Your task to perform on an android device: toggle data saver in the chrome app Image 0: 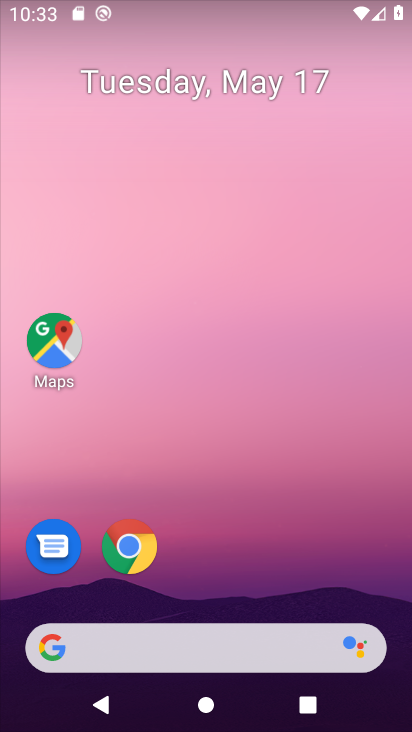
Step 0: drag from (251, 592) to (222, 146)
Your task to perform on an android device: toggle data saver in the chrome app Image 1: 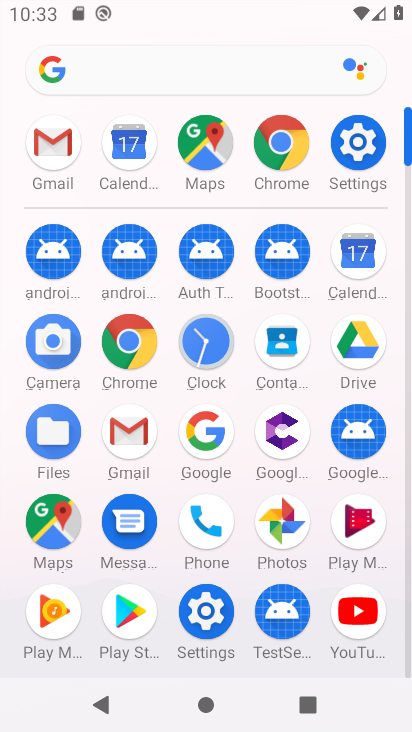
Step 1: click (280, 144)
Your task to perform on an android device: toggle data saver in the chrome app Image 2: 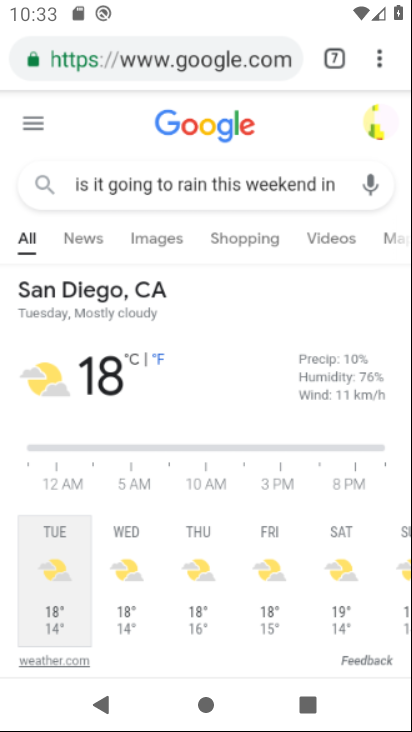
Step 2: click (387, 58)
Your task to perform on an android device: toggle data saver in the chrome app Image 3: 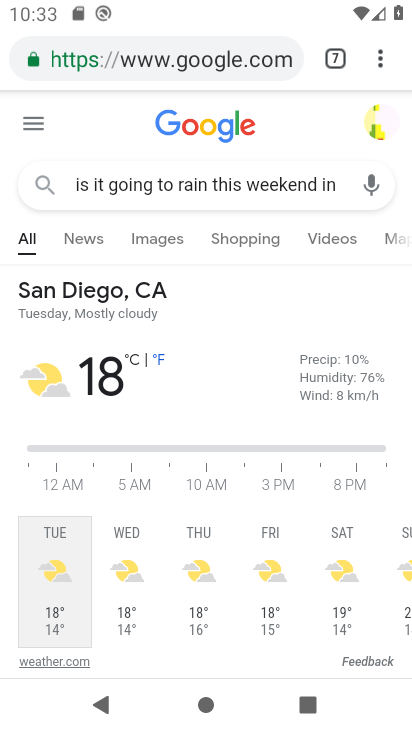
Step 3: click (382, 65)
Your task to perform on an android device: toggle data saver in the chrome app Image 4: 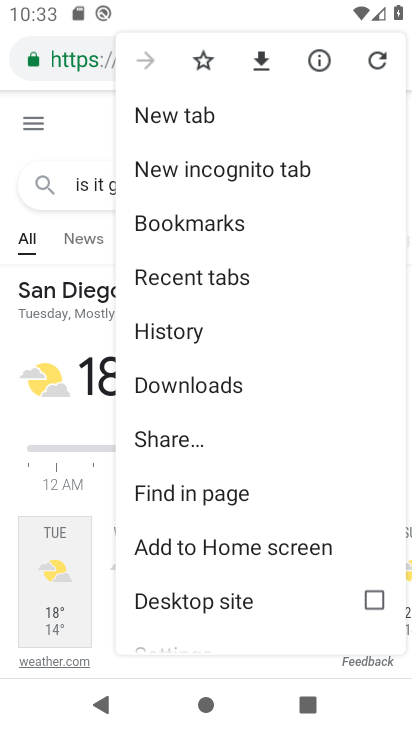
Step 4: drag from (183, 502) to (240, 225)
Your task to perform on an android device: toggle data saver in the chrome app Image 5: 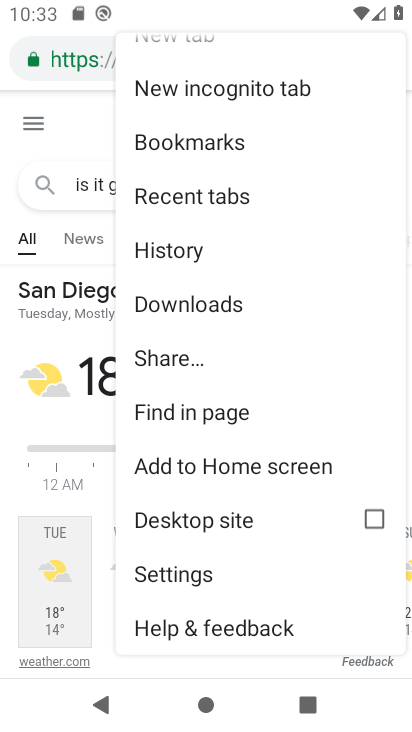
Step 5: click (185, 576)
Your task to perform on an android device: toggle data saver in the chrome app Image 6: 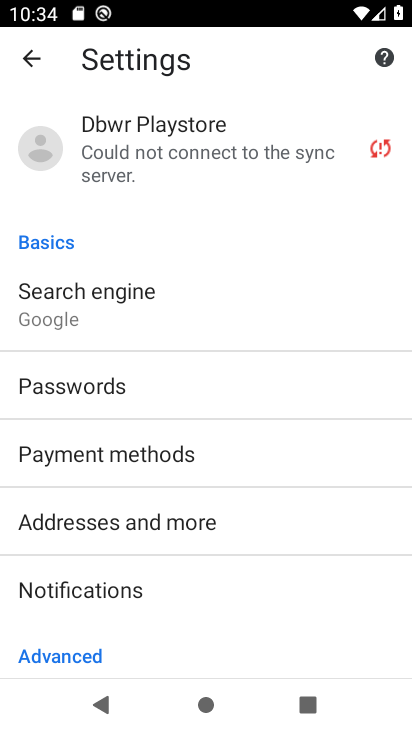
Step 6: drag from (161, 585) to (210, 246)
Your task to perform on an android device: toggle data saver in the chrome app Image 7: 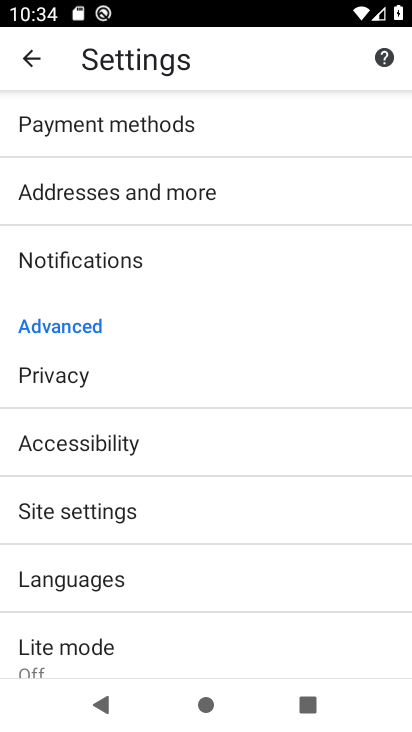
Step 7: drag from (182, 576) to (184, 304)
Your task to perform on an android device: toggle data saver in the chrome app Image 8: 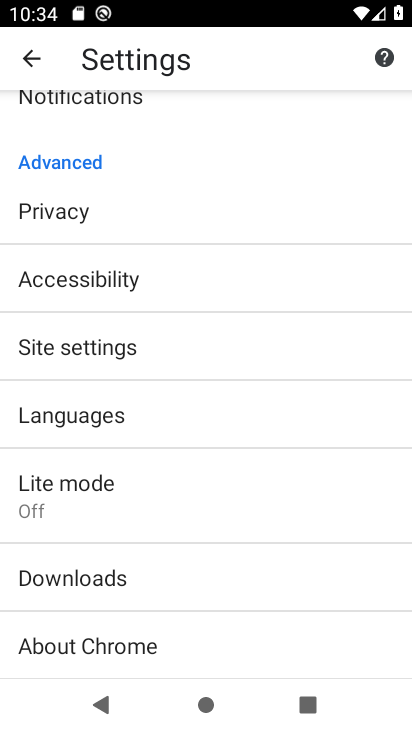
Step 8: click (89, 505)
Your task to perform on an android device: toggle data saver in the chrome app Image 9: 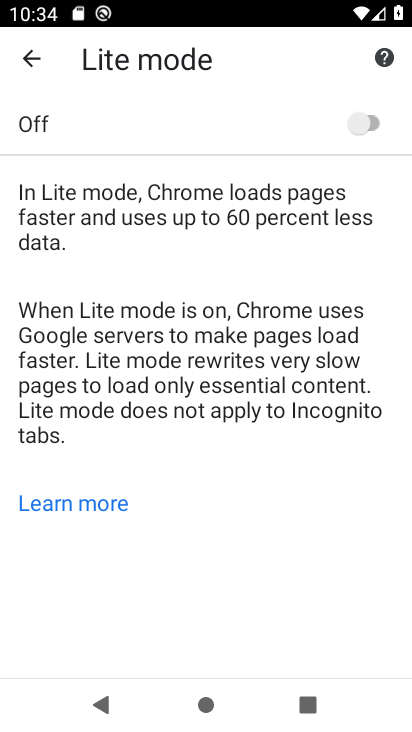
Step 9: click (365, 109)
Your task to perform on an android device: toggle data saver in the chrome app Image 10: 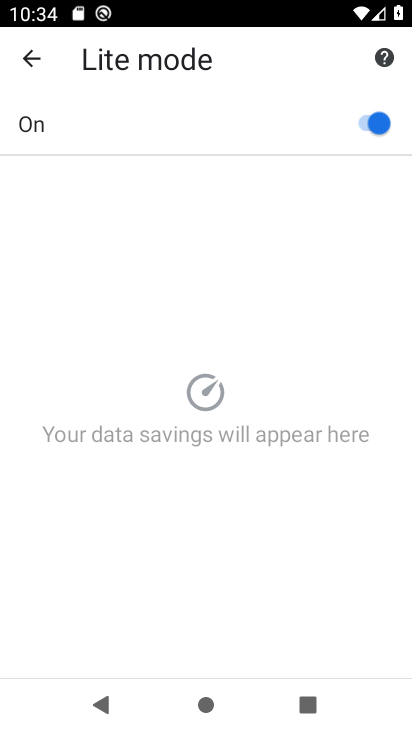
Step 10: task complete